Your task to perform on an android device: open chrome privacy settings Image 0: 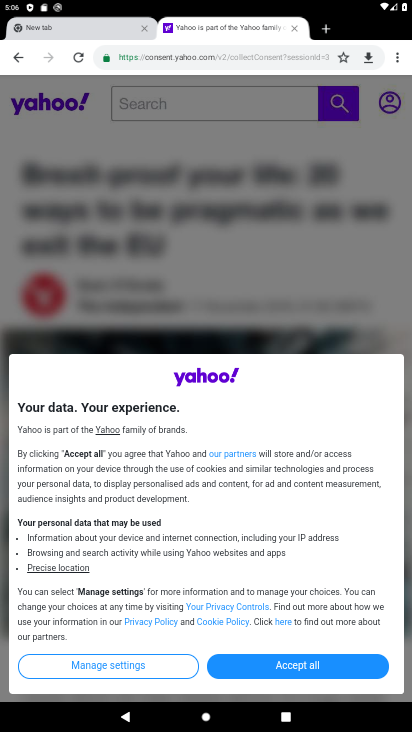
Step 0: drag from (396, 50) to (268, 385)
Your task to perform on an android device: open chrome privacy settings Image 1: 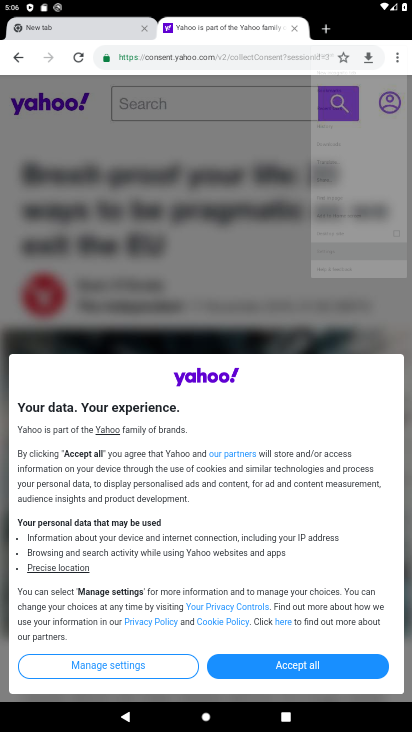
Step 1: click (268, 384)
Your task to perform on an android device: open chrome privacy settings Image 2: 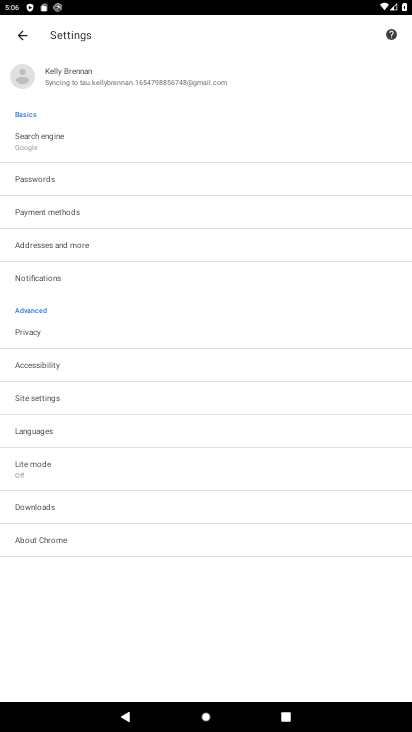
Step 2: click (40, 323)
Your task to perform on an android device: open chrome privacy settings Image 3: 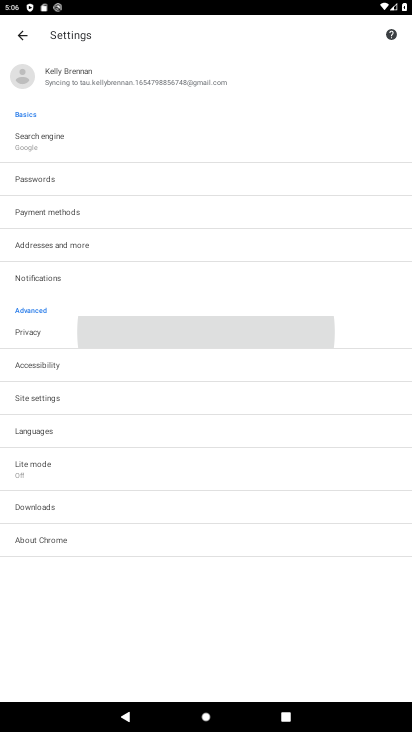
Step 3: click (40, 323)
Your task to perform on an android device: open chrome privacy settings Image 4: 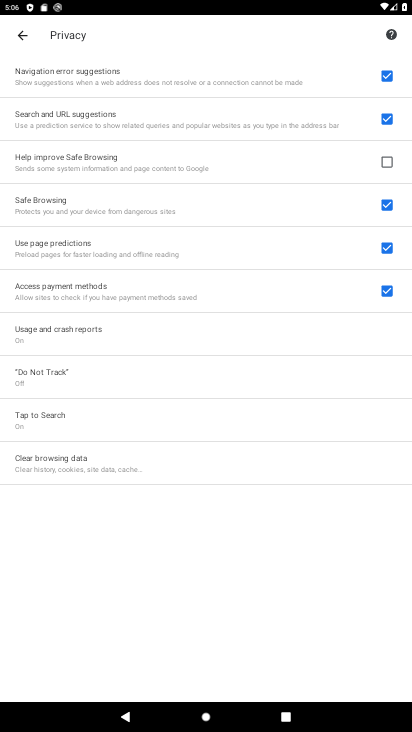
Step 4: task complete